Your task to perform on an android device: Go to Android settings Image 0: 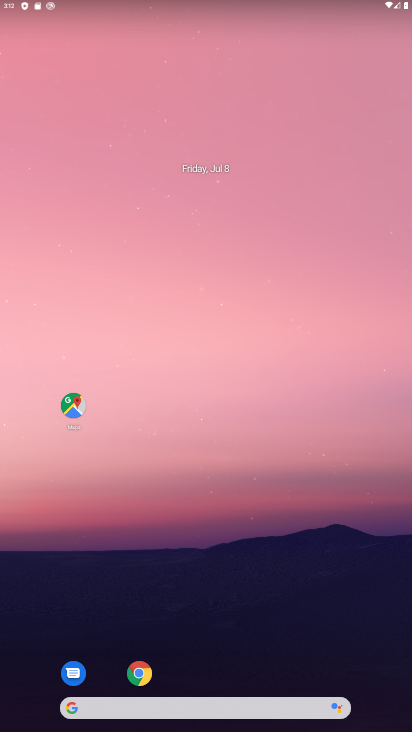
Step 0: drag from (243, 646) to (242, 17)
Your task to perform on an android device: Go to Android settings Image 1: 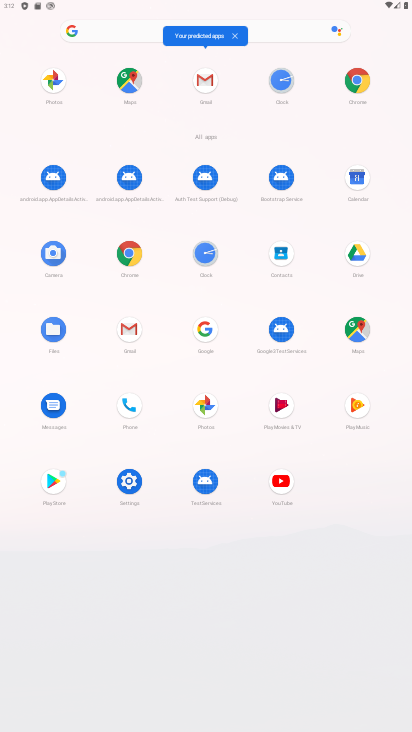
Step 1: click (130, 486)
Your task to perform on an android device: Go to Android settings Image 2: 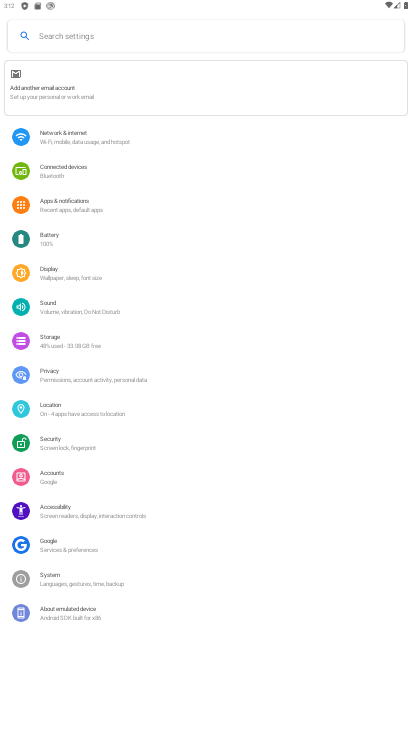
Step 2: task complete